Your task to perform on an android device: turn pop-ups on in chrome Image 0: 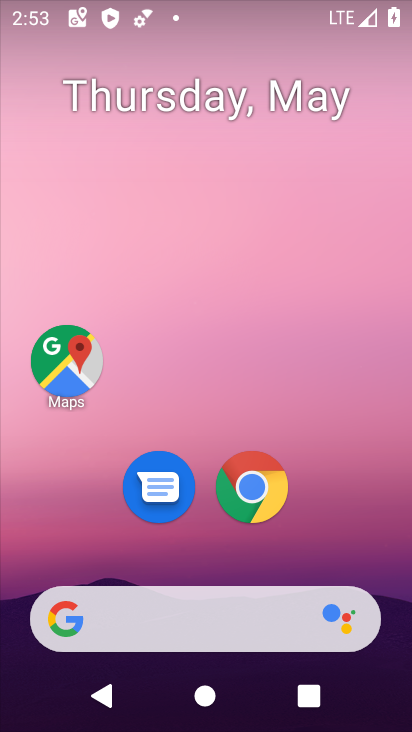
Step 0: drag from (160, 620) to (230, 145)
Your task to perform on an android device: turn pop-ups on in chrome Image 1: 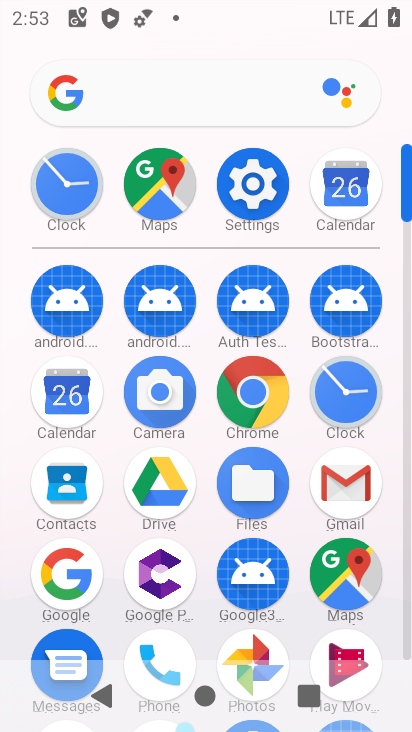
Step 1: click (264, 406)
Your task to perform on an android device: turn pop-ups on in chrome Image 2: 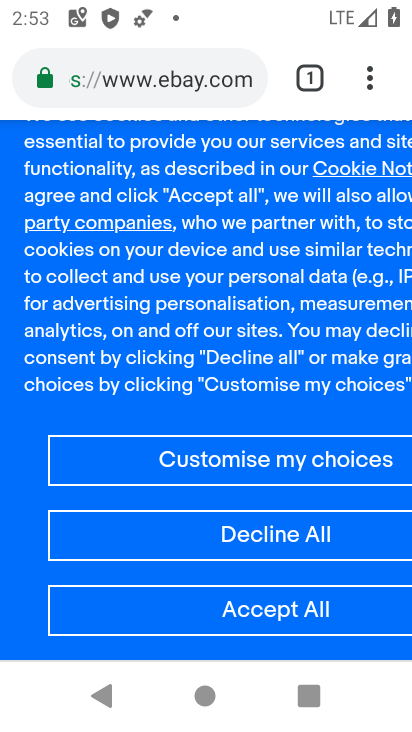
Step 2: click (382, 74)
Your task to perform on an android device: turn pop-ups on in chrome Image 3: 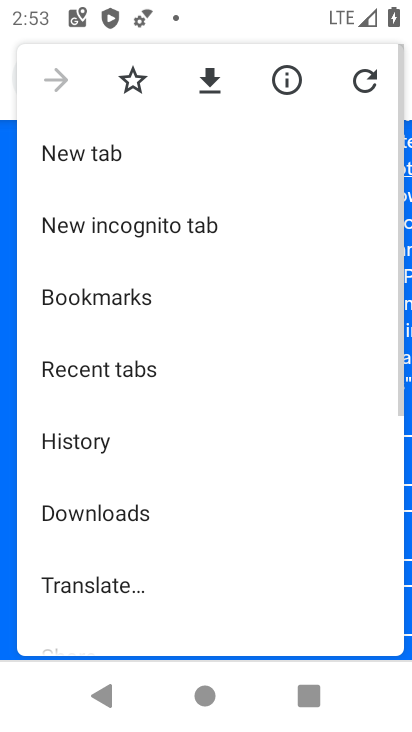
Step 3: drag from (235, 491) to (218, 362)
Your task to perform on an android device: turn pop-ups on in chrome Image 4: 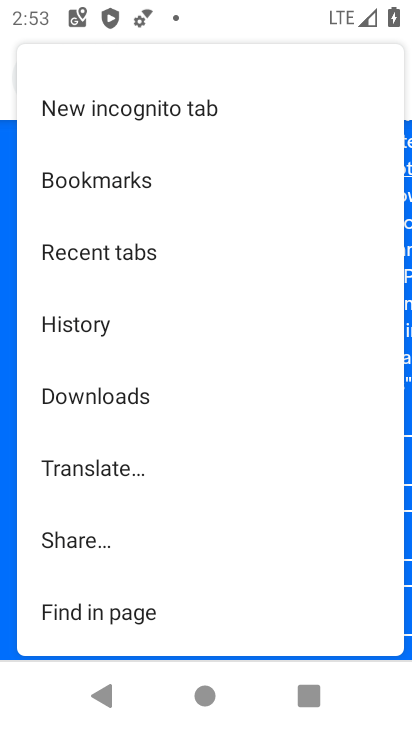
Step 4: drag from (211, 499) to (221, 345)
Your task to perform on an android device: turn pop-ups on in chrome Image 5: 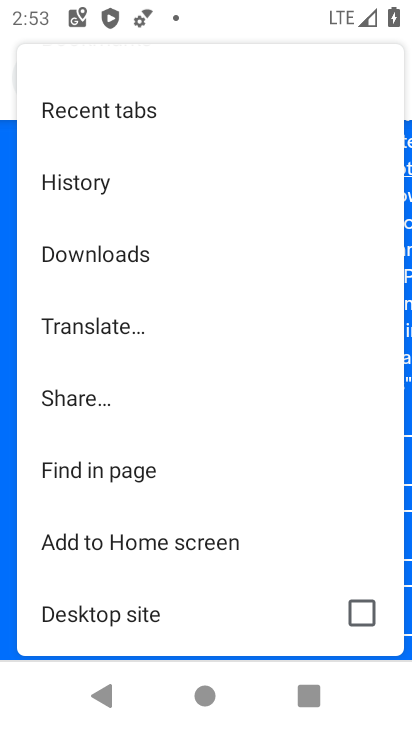
Step 5: drag from (206, 572) to (292, 81)
Your task to perform on an android device: turn pop-ups on in chrome Image 6: 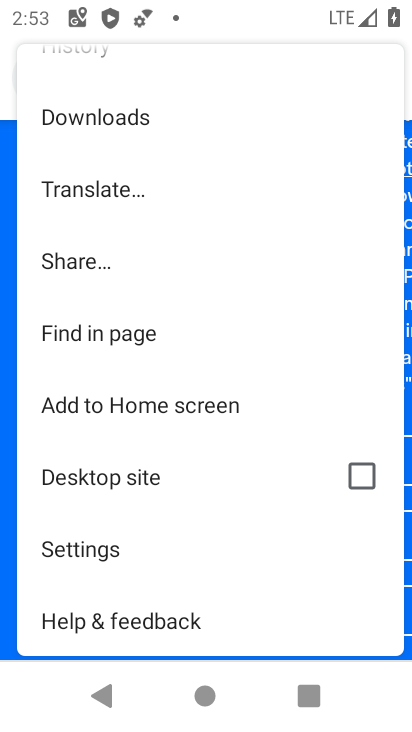
Step 6: click (112, 551)
Your task to perform on an android device: turn pop-ups on in chrome Image 7: 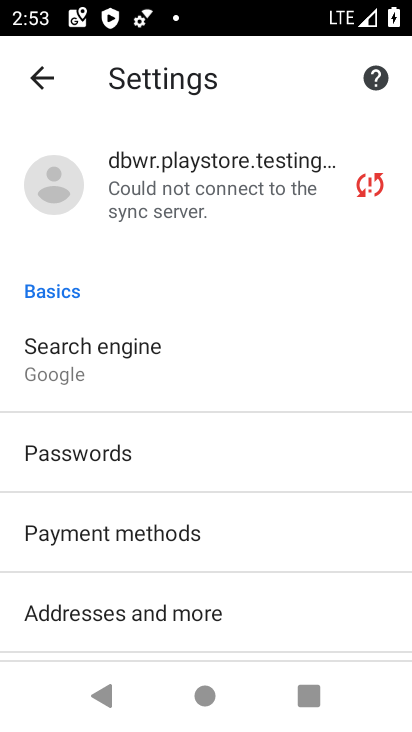
Step 7: drag from (112, 551) to (177, 4)
Your task to perform on an android device: turn pop-ups on in chrome Image 8: 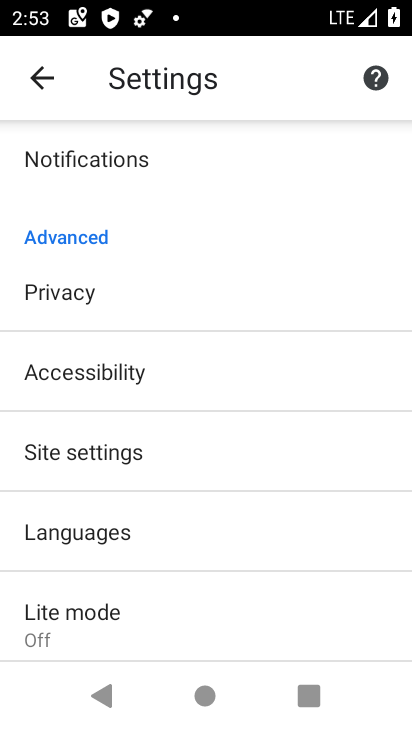
Step 8: click (124, 451)
Your task to perform on an android device: turn pop-ups on in chrome Image 9: 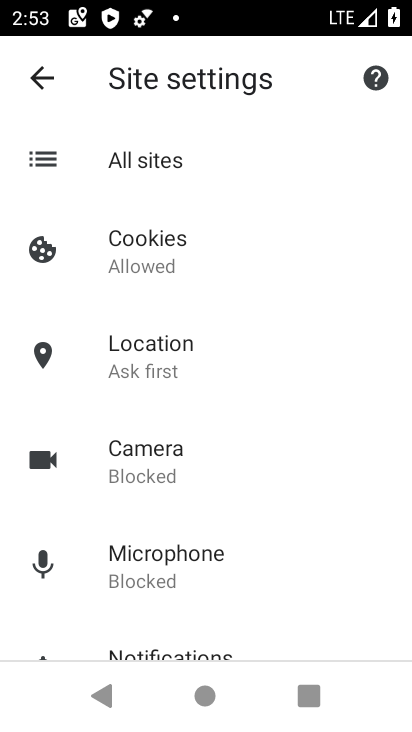
Step 9: drag from (167, 502) to (176, 392)
Your task to perform on an android device: turn pop-ups on in chrome Image 10: 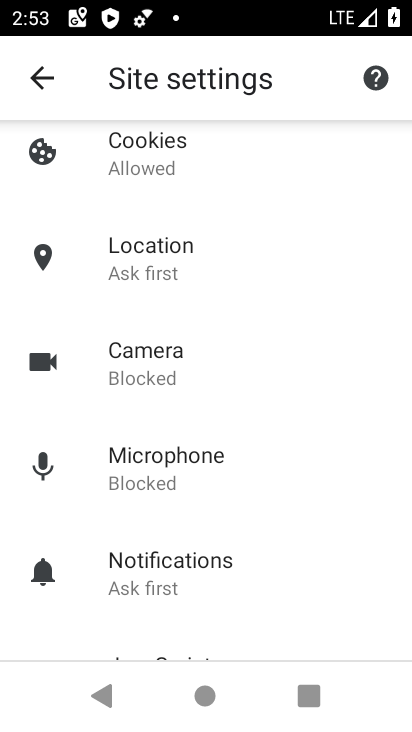
Step 10: drag from (154, 550) to (165, 365)
Your task to perform on an android device: turn pop-ups on in chrome Image 11: 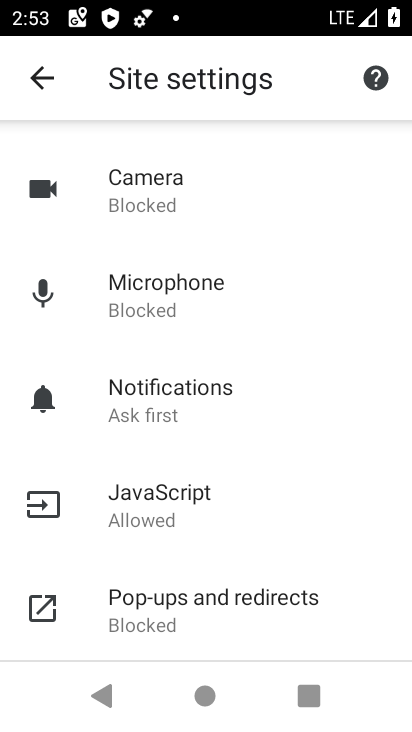
Step 11: click (221, 594)
Your task to perform on an android device: turn pop-ups on in chrome Image 12: 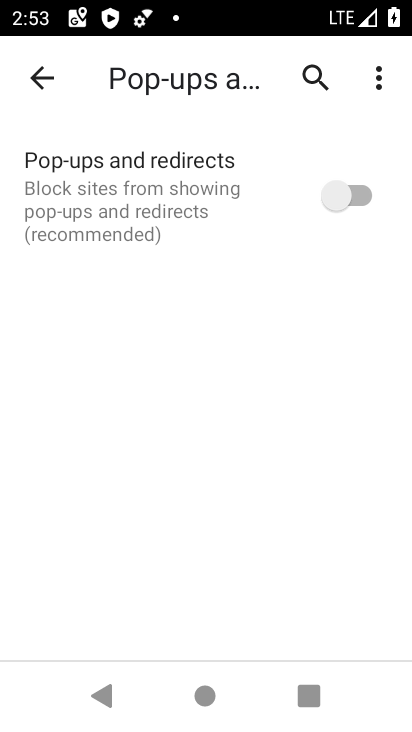
Step 12: click (356, 203)
Your task to perform on an android device: turn pop-ups on in chrome Image 13: 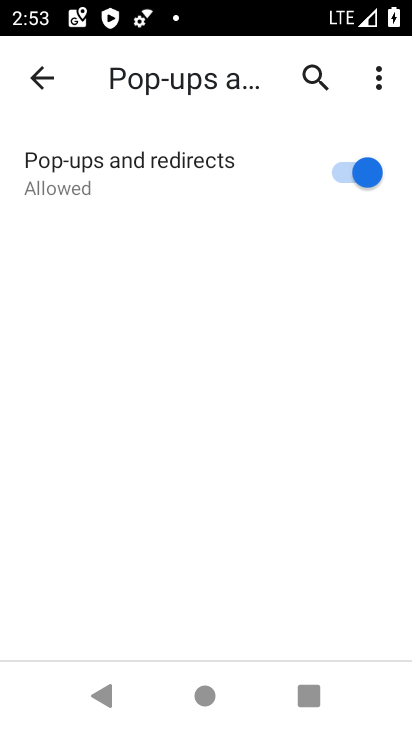
Step 13: task complete